Your task to perform on an android device: Go to notification settings Image 0: 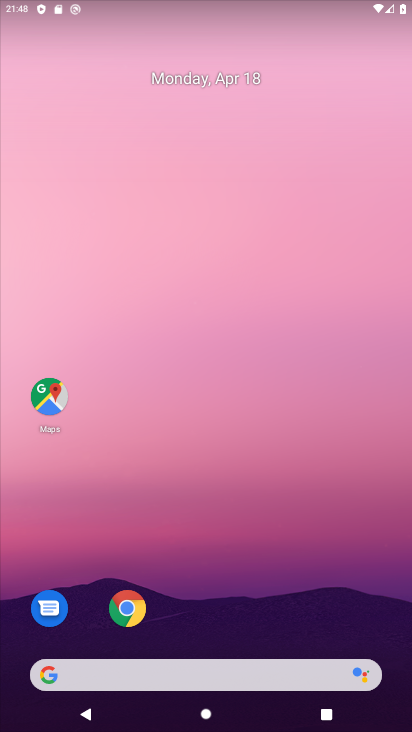
Step 0: drag from (185, 556) to (143, 173)
Your task to perform on an android device: Go to notification settings Image 1: 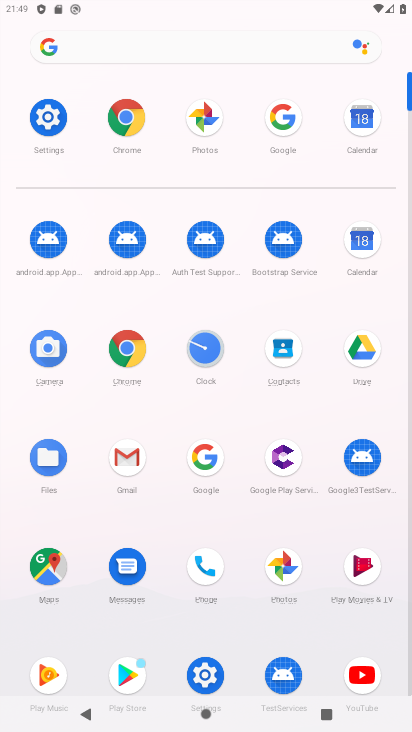
Step 1: click (41, 120)
Your task to perform on an android device: Go to notification settings Image 2: 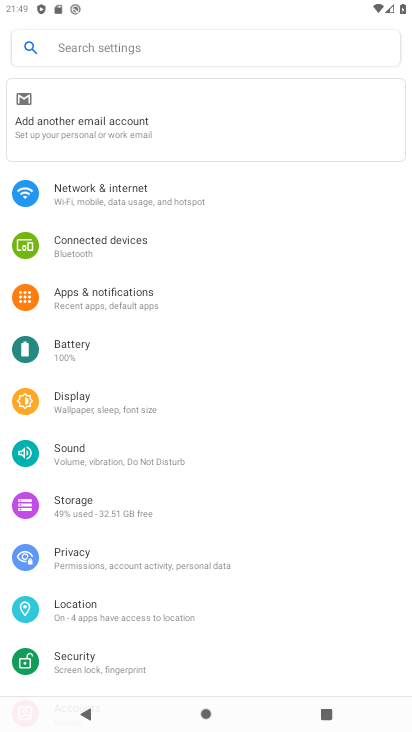
Step 2: click (101, 300)
Your task to perform on an android device: Go to notification settings Image 3: 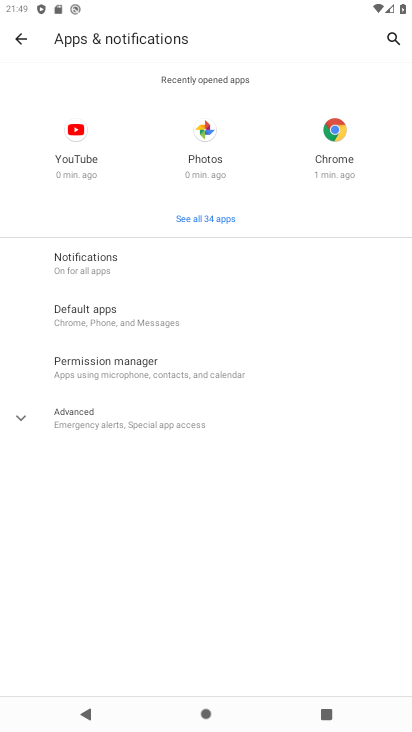
Step 3: click (112, 256)
Your task to perform on an android device: Go to notification settings Image 4: 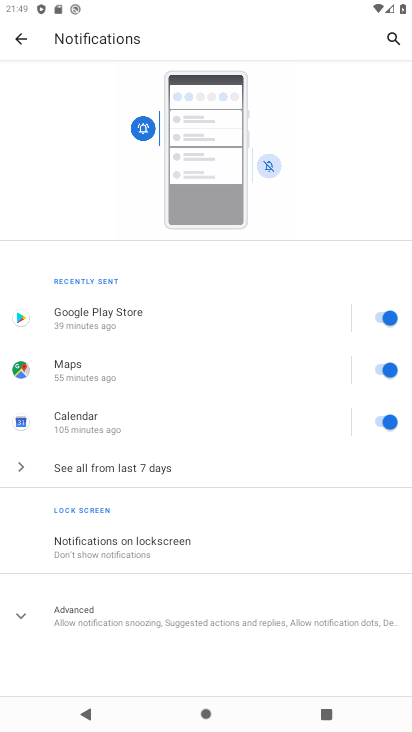
Step 4: task complete